Your task to perform on an android device: change notification settings in the gmail app Image 0: 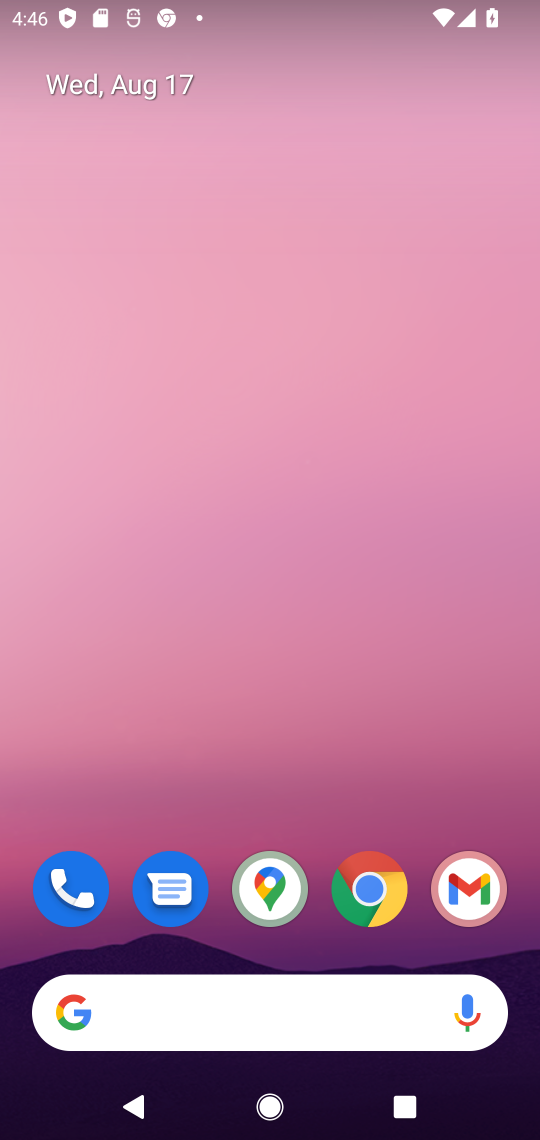
Step 0: click (460, 890)
Your task to perform on an android device: change notification settings in the gmail app Image 1: 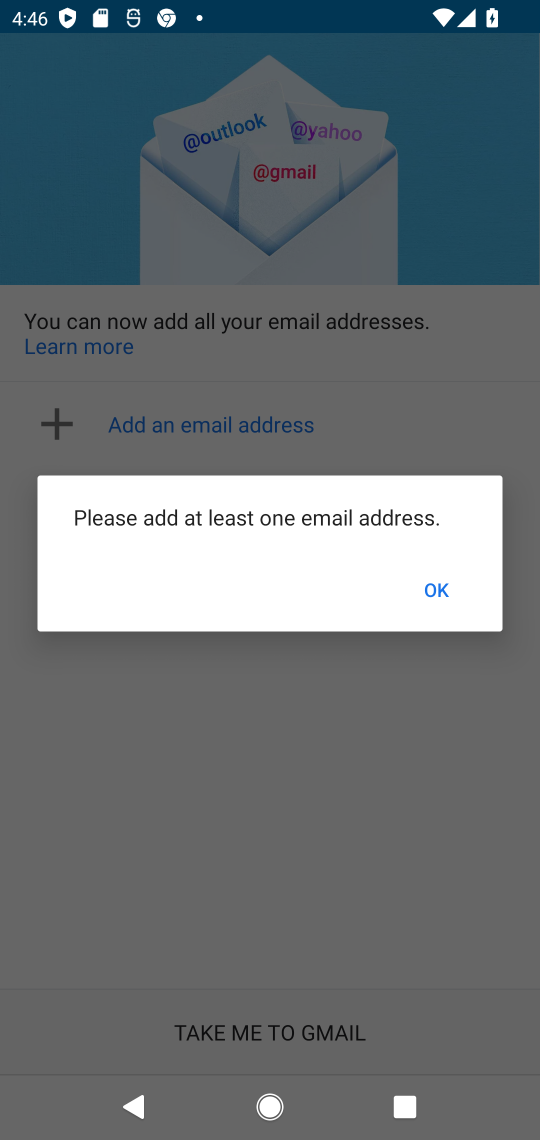
Step 1: click (445, 581)
Your task to perform on an android device: change notification settings in the gmail app Image 2: 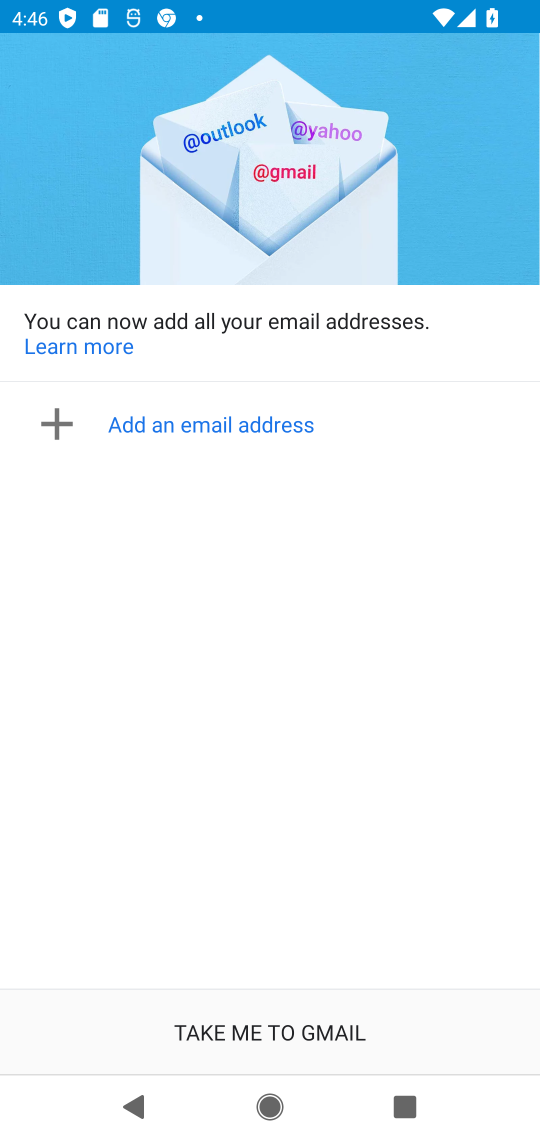
Step 2: click (267, 1020)
Your task to perform on an android device: change notification settings in the gmail app Image 3: 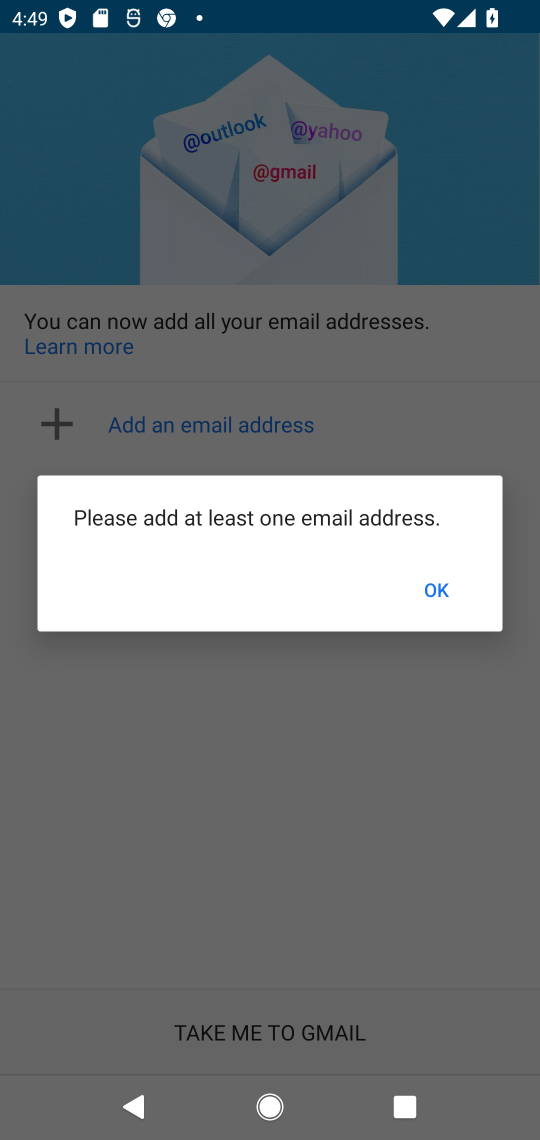
Step 3: task complete